Your task to perform on an android device: Search for seafood restaurants on Google Maps Image 0: 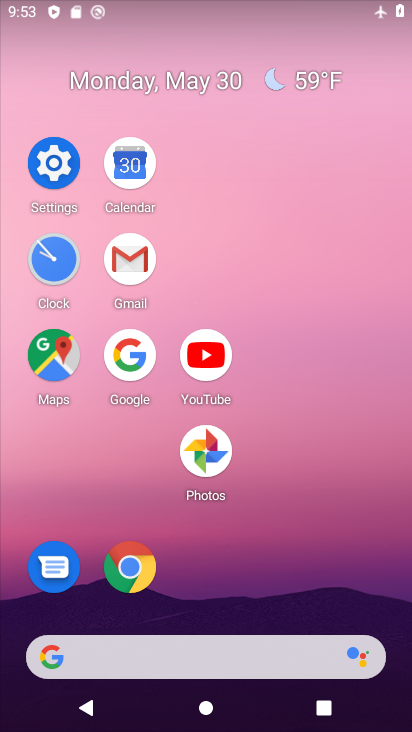
Step 0: click (53, 333)
Your task to perform on an android device: Search for seafood restaurants on Google Maps Image 1: 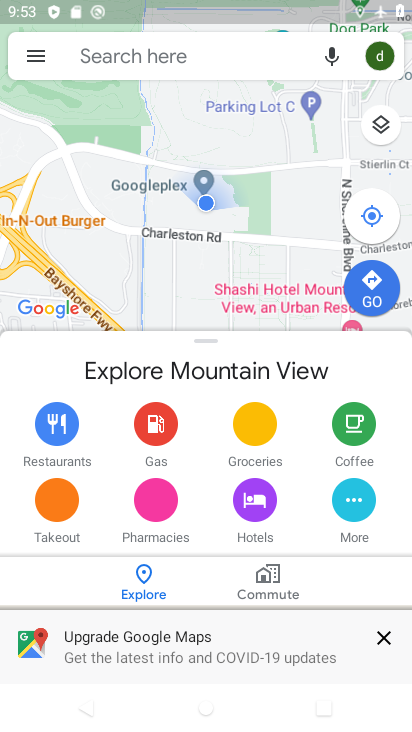
Step 1: click (223, 57)
Your task to perform on an android device: Search for seafood restaurants on Google Maps Image 2: 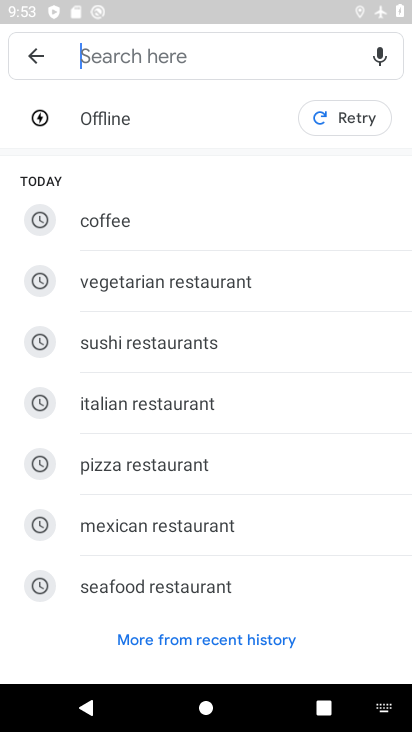
Step 2: click (244, 586)
Your task to perform on an android device: Search for seafood restaurants on Google Maps Image 3: 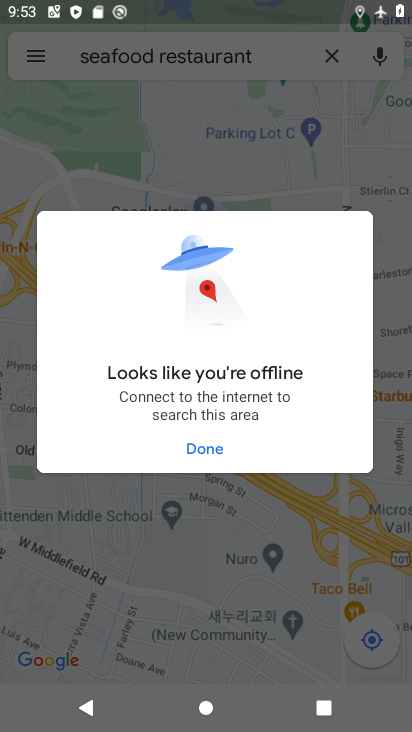
Step 3: task complete